Your task to perform on an android device: see tabs open on other devices in the chrome app Image 0: 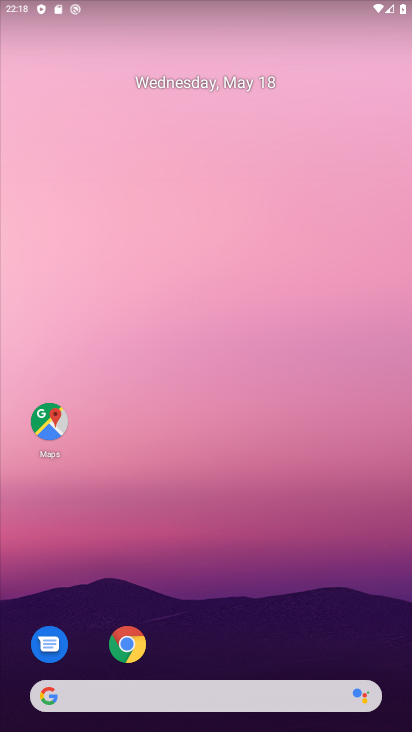
Step 0: click (131, 640)
Your task to perform on an android device: see tabs open on other devices in the chrome app Image 1: 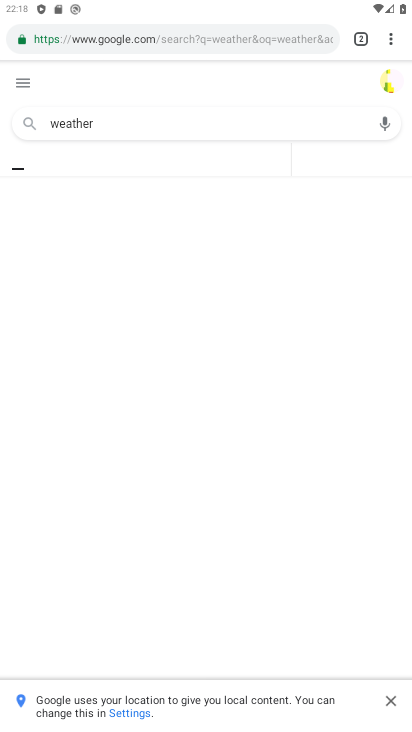
Step 1: task complete